Your task to perform on an android device: check out phone information Image 0: 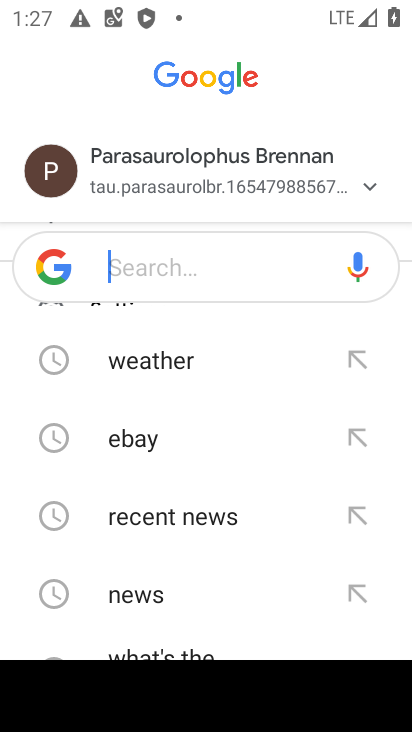
Step 0: press home button
Your task to perform on an android device: check out phone information Image 1: 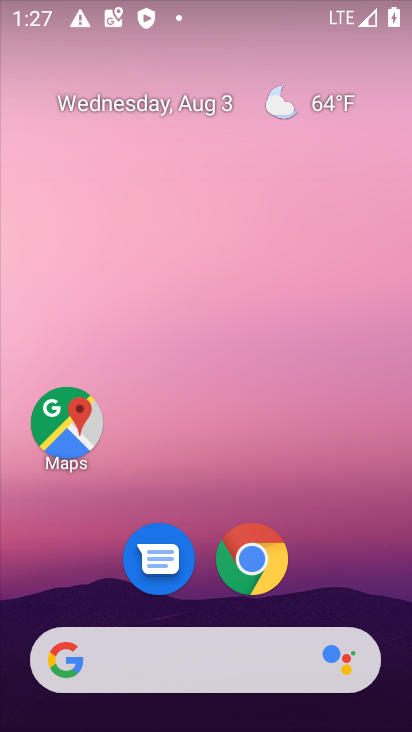
Step 1: drag from (206, 604) to (204, 253)
Your task to perform on an android device: check out phone information Image 2: 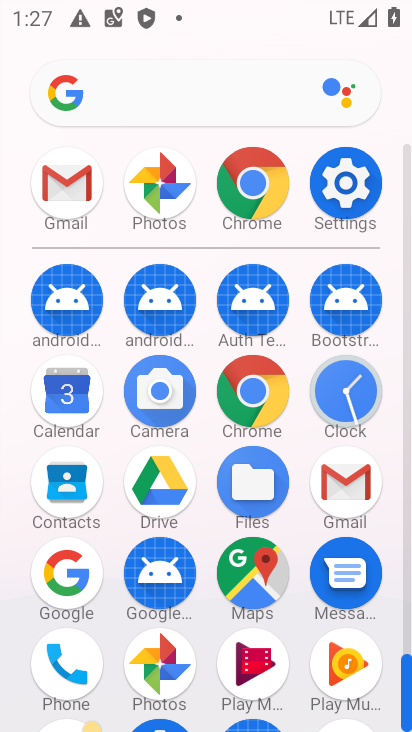
Step 2: click (344, 186)
Your task to perform on an android device: check out phone information Image 3: 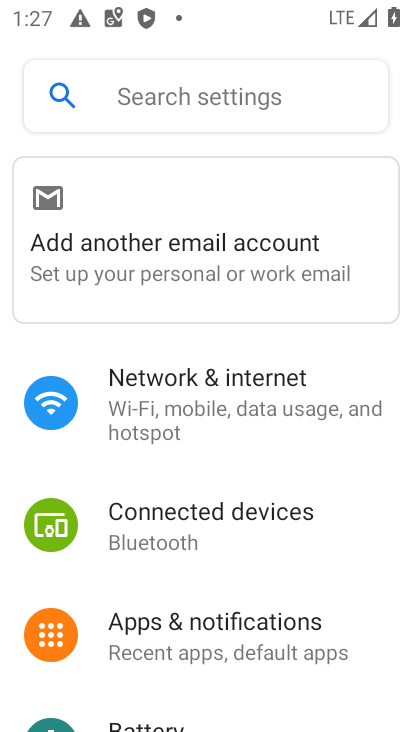
Step 3: drag from (223, 699) to (223, 369)
Your task to perform on an android device: check out phone information Image 4: 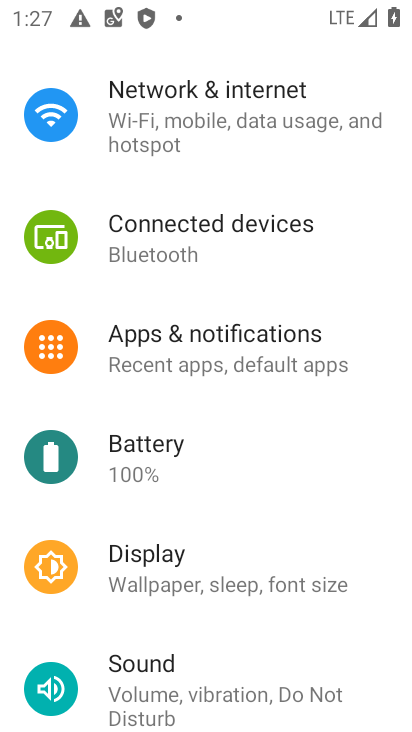
Step 4: drag from (145, 647) to (171, 432)
Your task to perform on an android device: check out phone information Image 5: 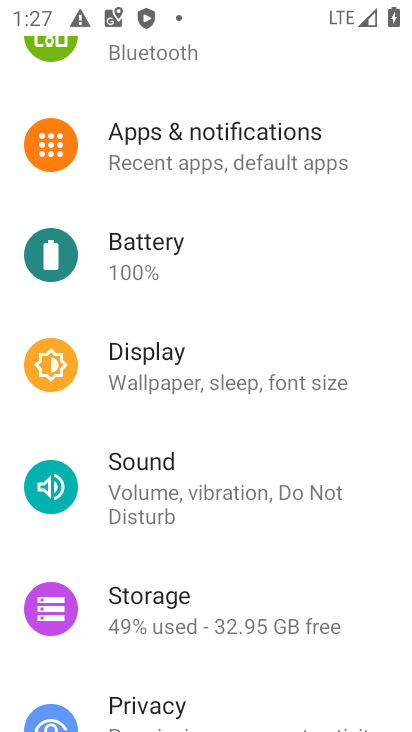
Step 5: drag from (148, 689) to (136, 246)
Your task to perform on an android device: check out phone information Image 6: 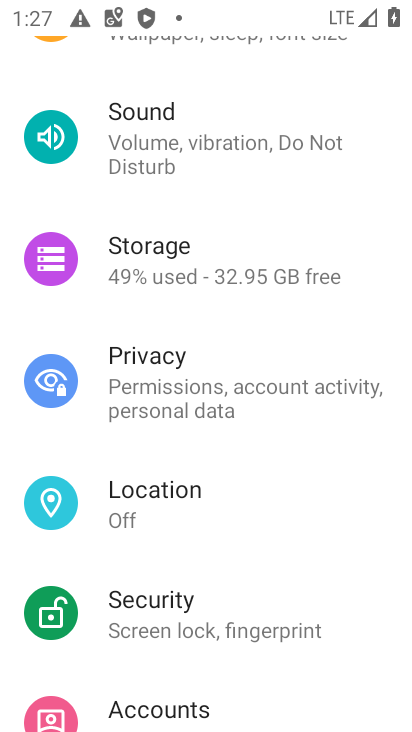
Step 6: drag from (143, 666) to (127, 281)
Your task to perform on an android device: check out phone information Image 7: 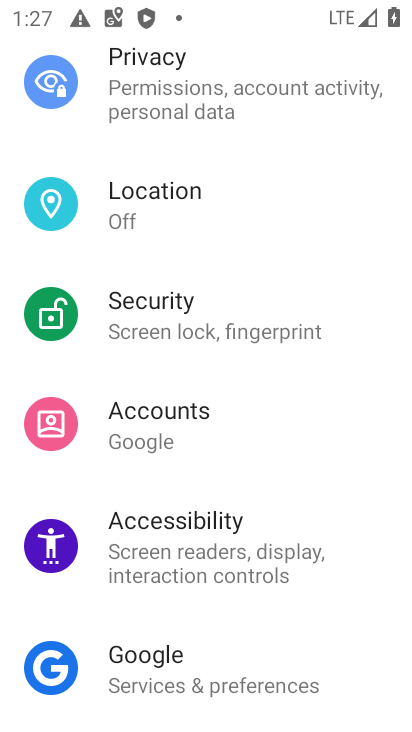
Step 7: drag from (172, 666) to (180, 312)
Your task to perform on an android device: check out phone information Image 8: 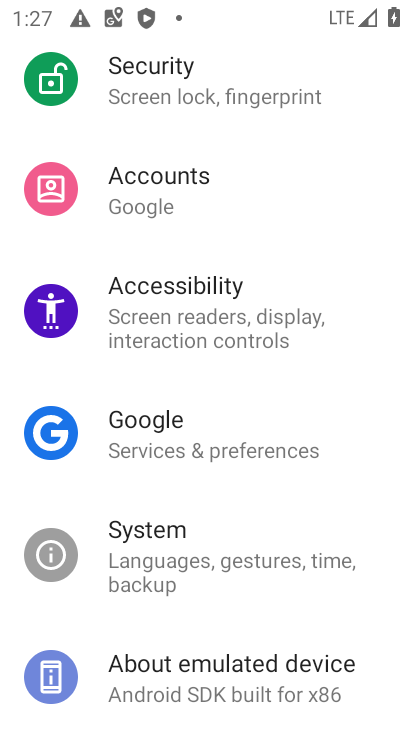
Step 8: drag from (168, 692) to (202, 298)
Your task to perform on an android device: check out phone information Image 9: 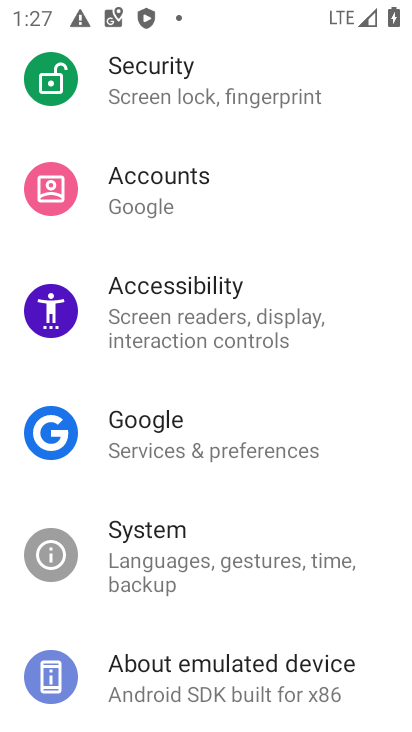
Step 9: click (168, 676)
Your task to perform on an android device: check out phone information Image 10: 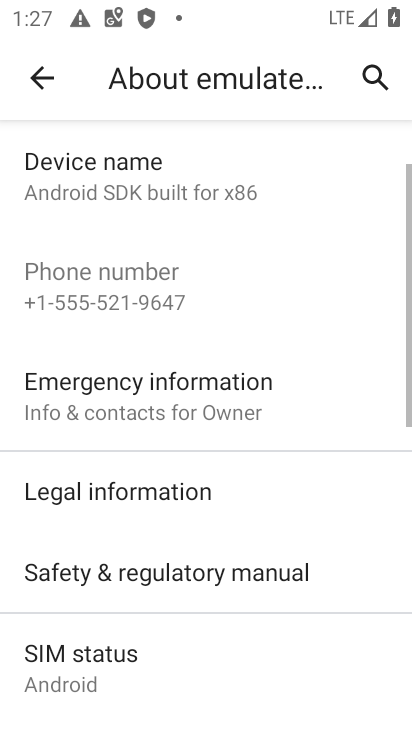
Step 10: task complete